Your task to perform on an android device: Search for Mexican restaurants on Maps Image 0: 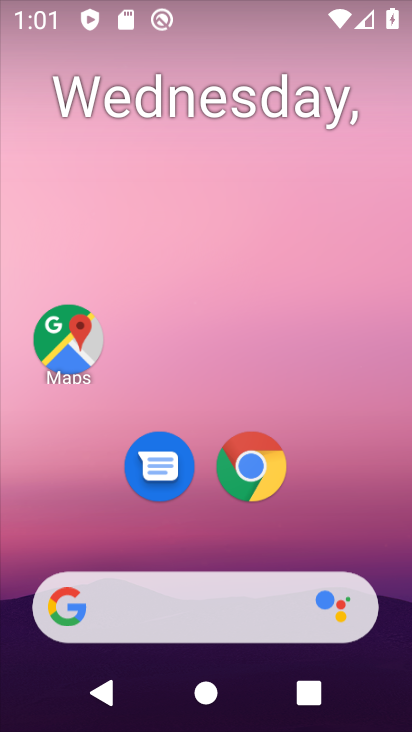
Step 0: click (89, 358)
Your task to perform on an android device: Search for Mexican restaurants on Maps Image 1: 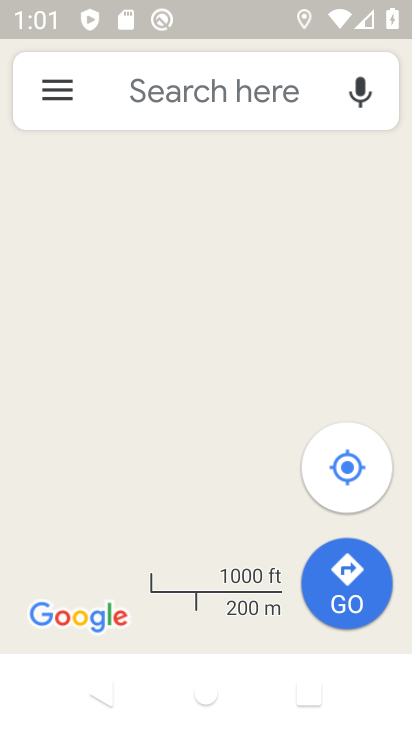
Step 1: click (224, 112)
Your task to perform on an android device: Search for Mexican restaurants on Maps Image 2: 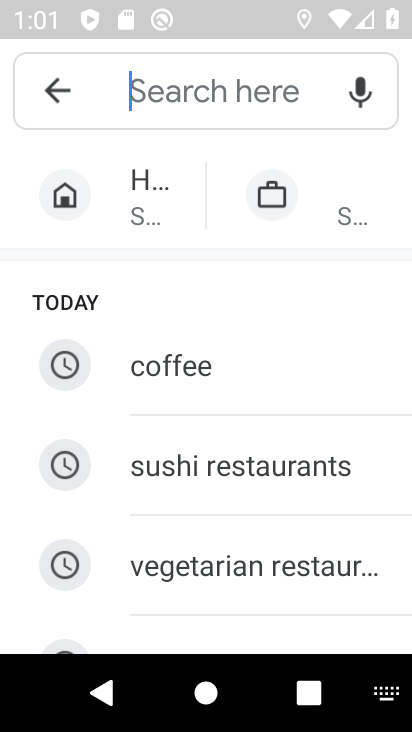
Step 2: type "mexican restaurant"
Your task to perform on an android device: Search for Mexican restaurants on Maps Image 3: 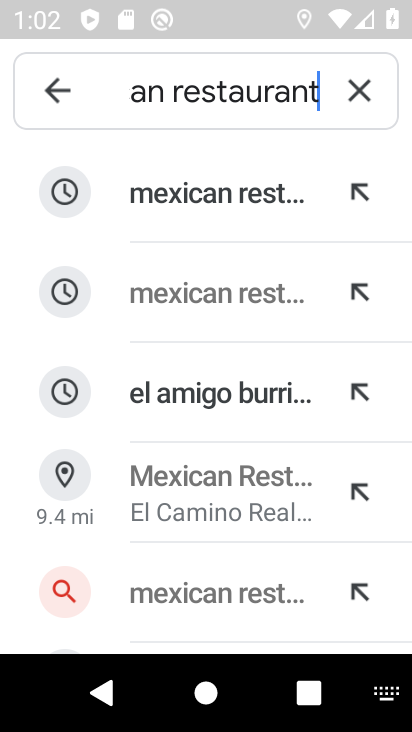
Step 3: click (231, 619)
Your task to perform on an android device: Search for Mexican restaurants on Maps Image 4: 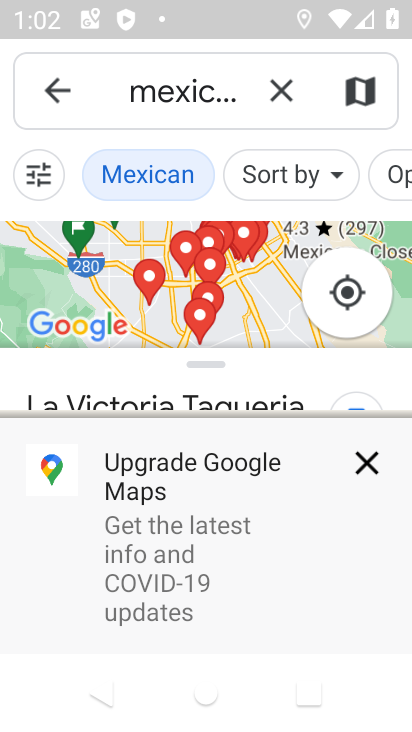
Step 4: task complete